Your task to perform on an android device: Open Google Maps and go to "Timeline" Image 0: 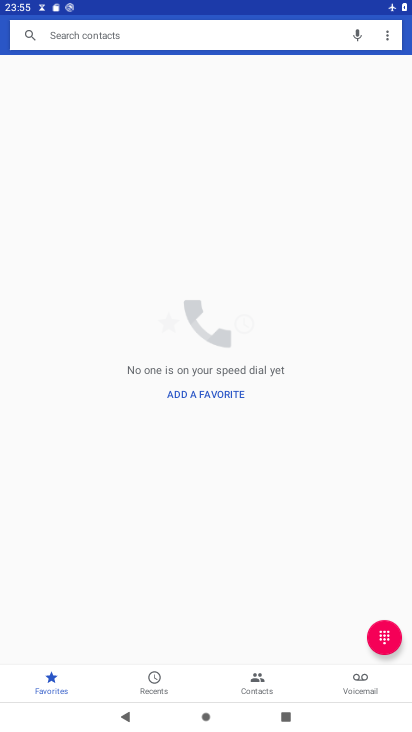
Step 0: press home button
Your task to perform on an android device: Open Google Maps and go to "Timeline" Image 1: 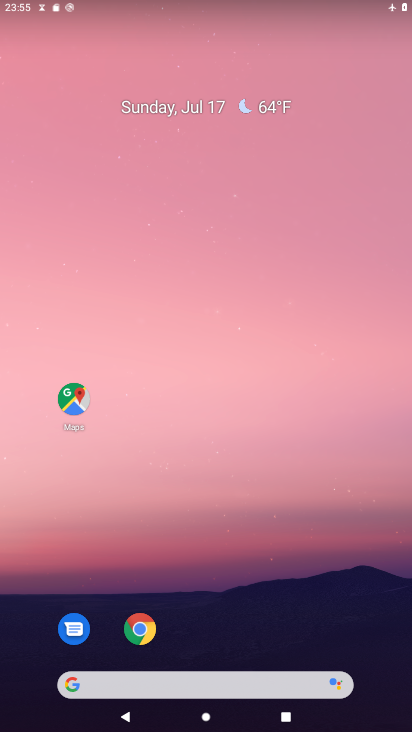
Step 1: drag from (235, 659) to (281, 177)
Your task to perform on an android device: Open Google Maps and go to "Timeline" Image 2: 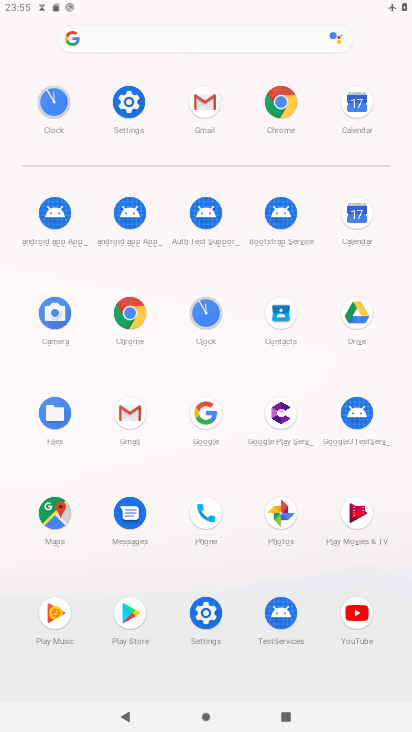
Step 2: click (49, 515)
Your task to perform on an android device: Open Google Maps and go to "Timeline" Image 3: 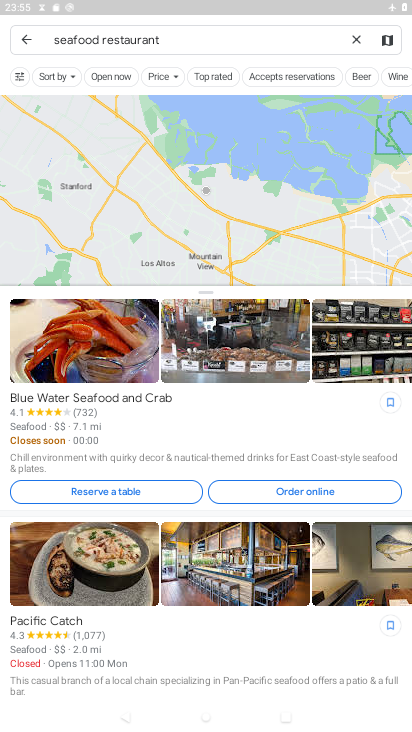
Step 3: click (350, 43)
Your task to perform on an android device: Open Google Maps and go to "Timeline" Image 4: 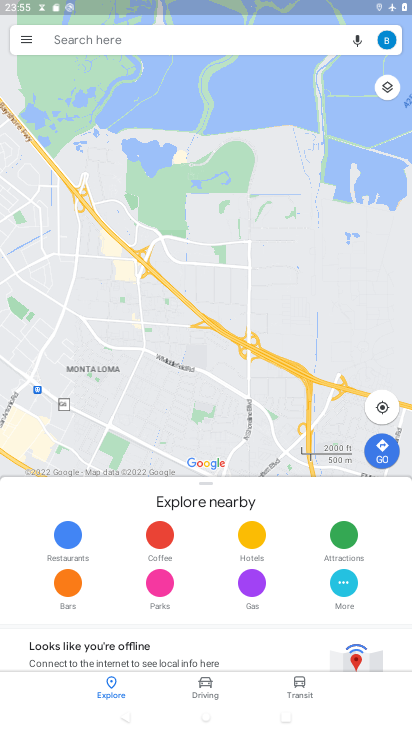
Step 4: click (33, 33)
Your task to perform on an android device: Open Google Maps and go to "Timeline" Image 5: 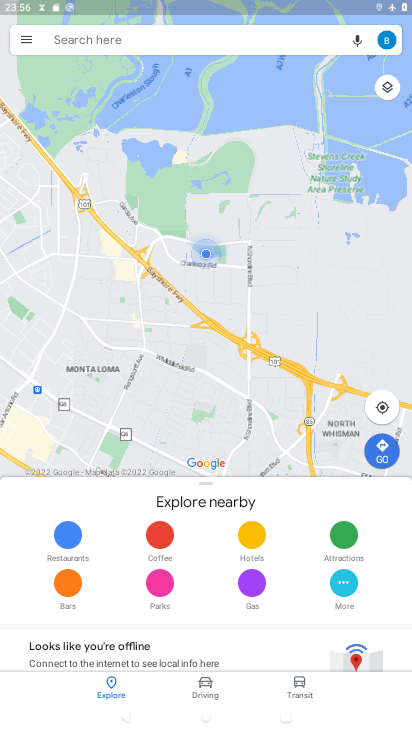
Step 5: click (22, 39)
Your task to perform on an android device: Open Google Maps and go to "Timeline" Image 6: 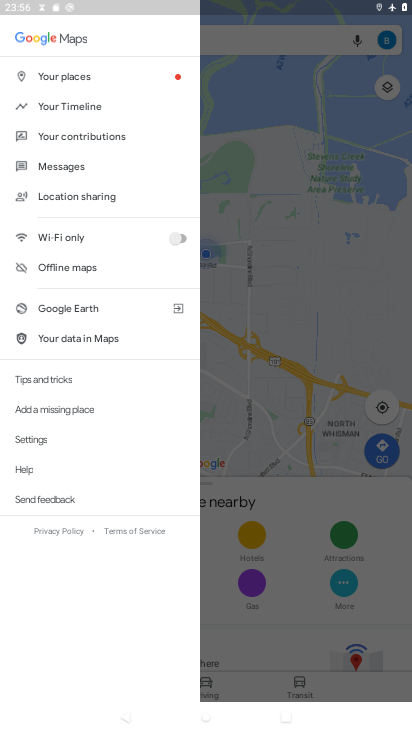
Step 6: click (74, 102)
Your task to perform on an android device: Open Google Maps and go to "Timeline" Image 7: 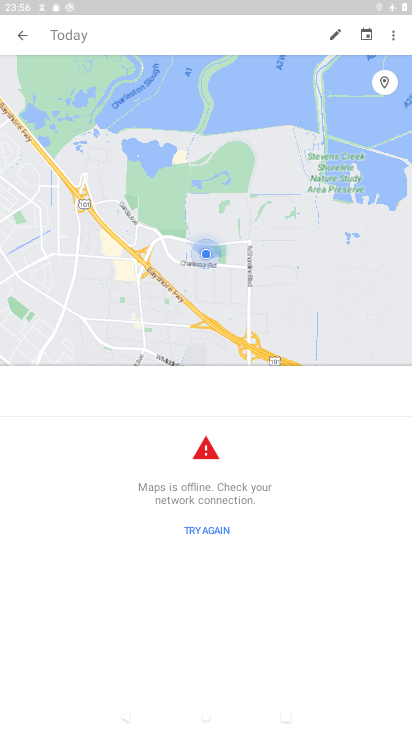
Step 7: task complete